Your task to perform on an android device: turn off wifi Image 0: 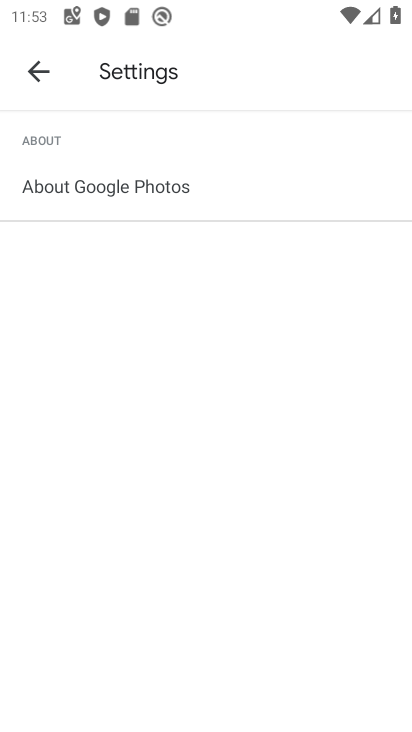
Step 0: drag from (290, 551) to (368, 418)
Your task to perform on an android device: turn off wifi Image 1: 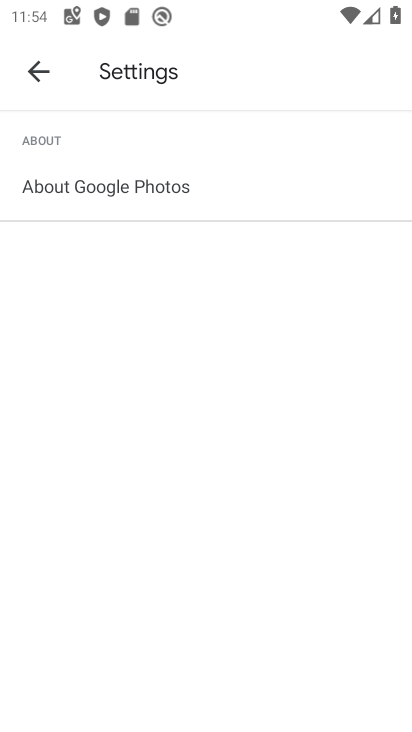
Step 1: press home button
Your task to perform on an android device: turn off wifi Image 2: 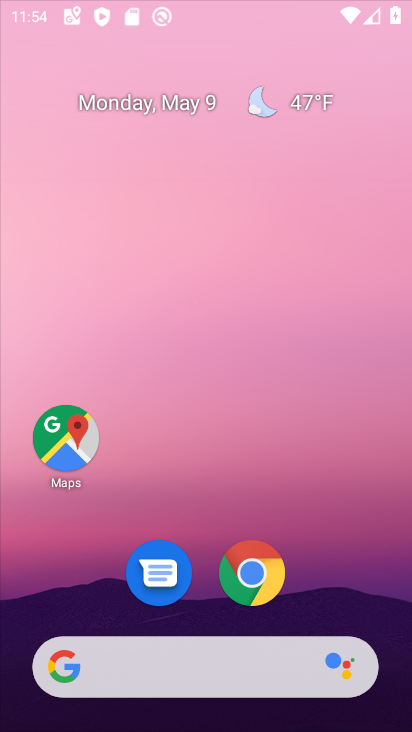
Step 2: drag from (209, 574) to (271, 162)
Your task to perform on an android device: turn off wifi Image 3: 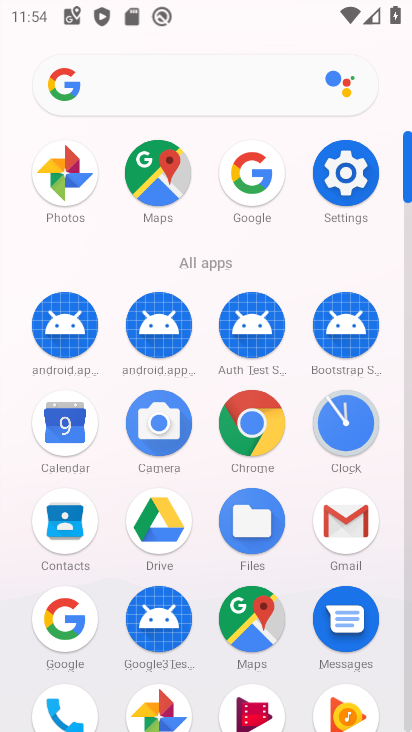
Step 3: click (337, 171)
Your task to perform on an android device: turn off wifi Image 4: 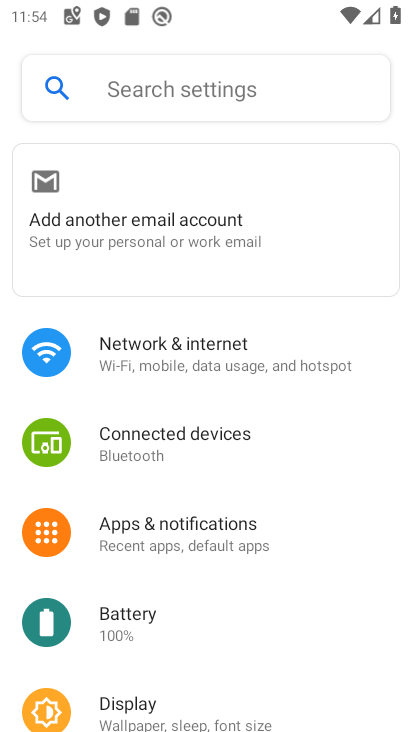
Step 4: drag from (151, 220) to (276, 18)
Your task to perform on an android device: turn off wifi Image 5: 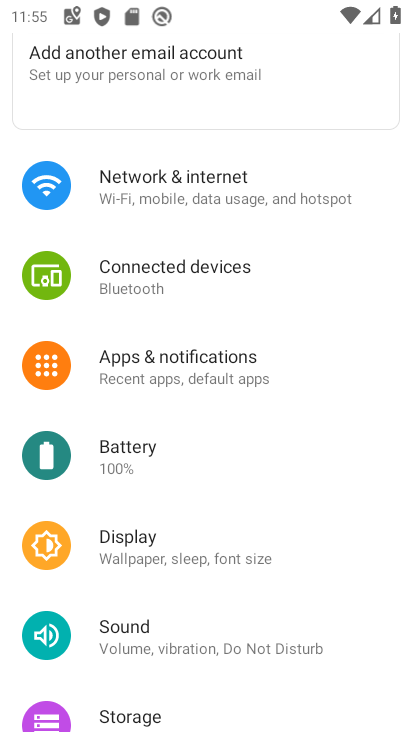
Step 5: click (190, 178)
Your task to perform on an android device: turn off wifi Image 6: 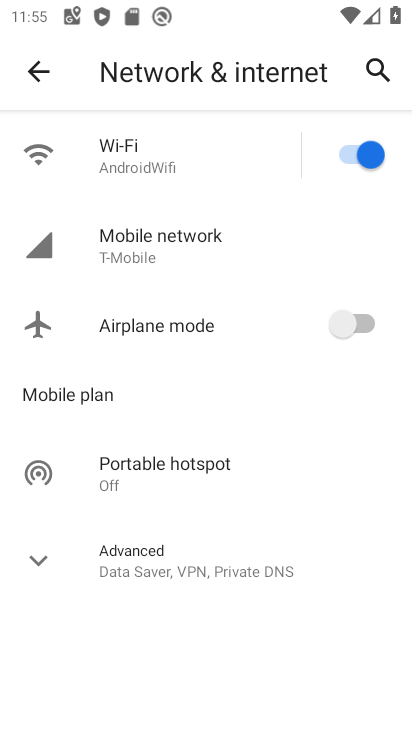
Step 6: click (347, 138)
Your task to perform on an android device: turn off wifi Image 7: 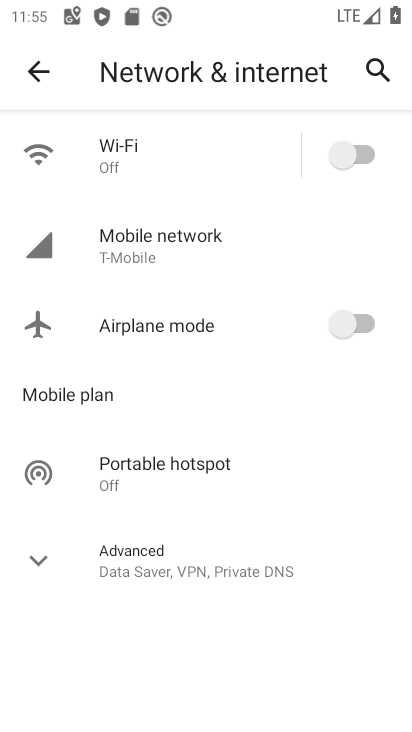
Step 7: task complete